Your task to perform on an android device: set the timer Image 0: 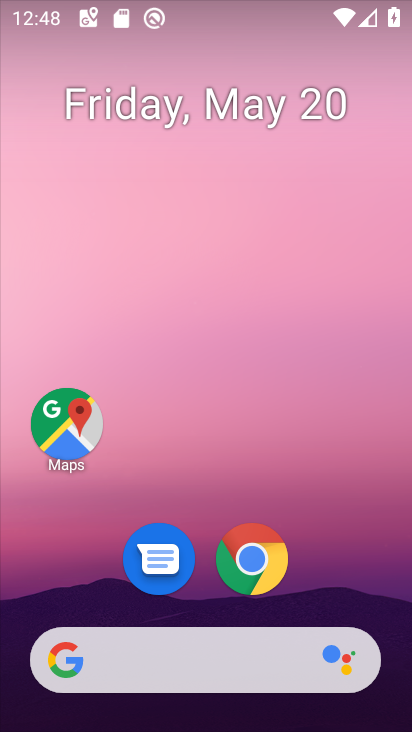
Step 0: drag from (323, 579) to (336, 106)
Your task to perform on an android device: set the timer Image 1: 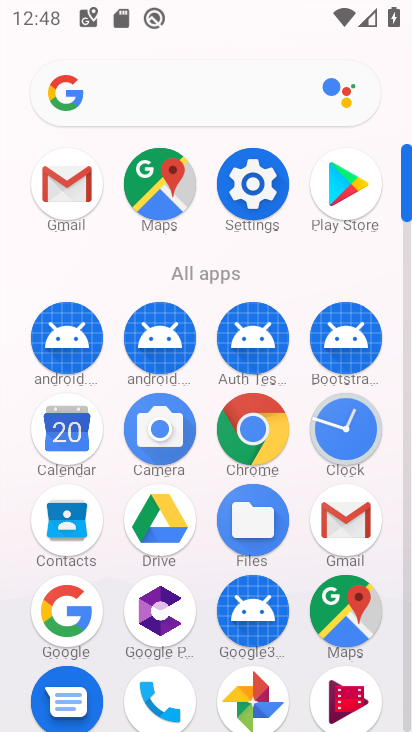
Step 1: click (340, 430)
Your task to perform on an android device: set the timer Image 2: 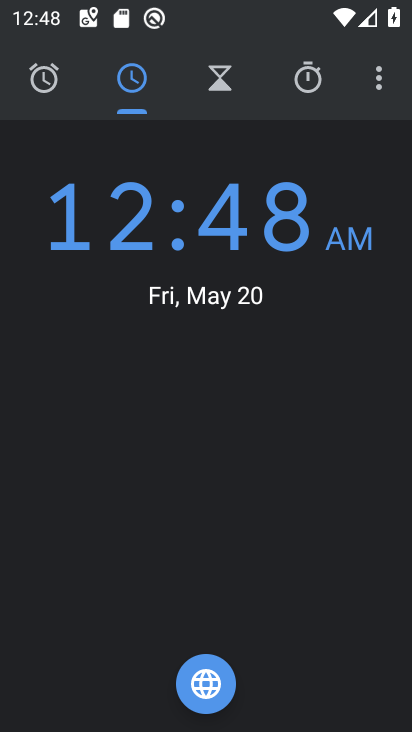
Step 2: click (219, 87)
Your task to perform on an android device: set the timer Image 3: 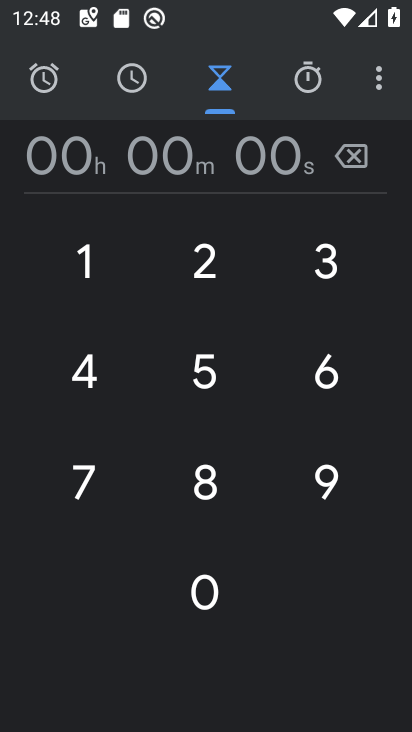
Step 3: click (210, 269)
Your task to perform on an android device: set the timer Image 4: 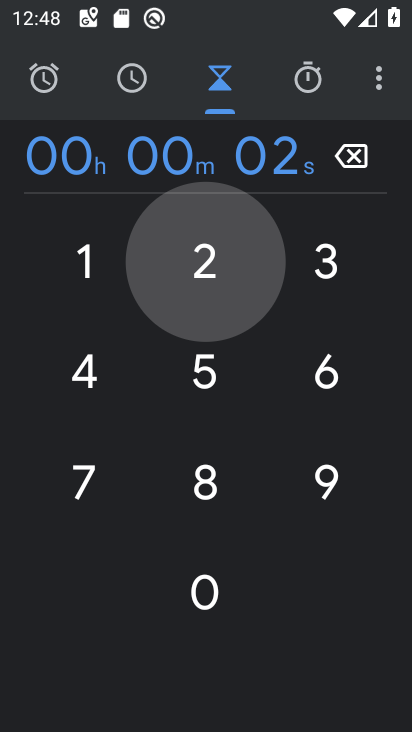
Step 4: click (323, 265)
Your task to perform on an android device: set the timer Image 5: 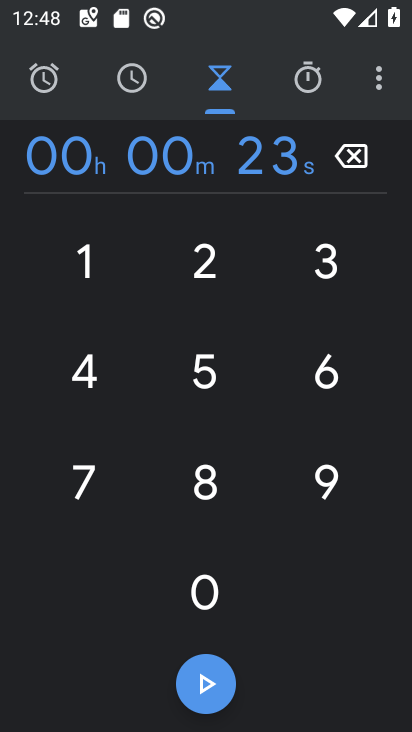
Step 5: click (183, 374)
Your task to perform on an android device: set the timer Image 6: 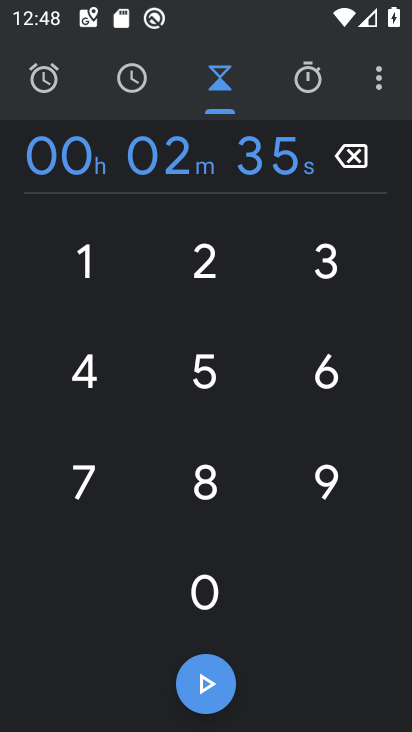
Step 6: click (316, 380)
Your task to perform on an android device: set the timer Image 7: 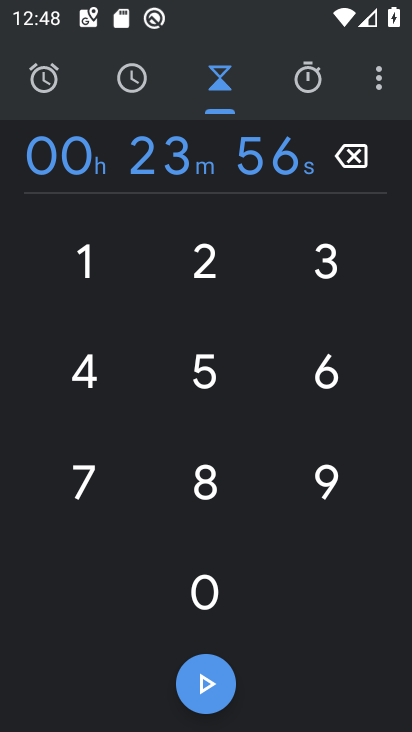
Step 7: click (226, 686)
Your task to perform on an android device: set the timer Image 8: 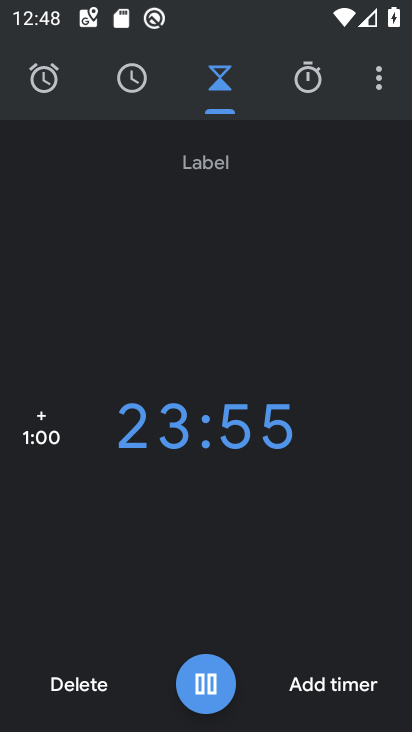
Step 8: task complete